Your task to perform on an android device: turn on translation in the chrome app Image 0: 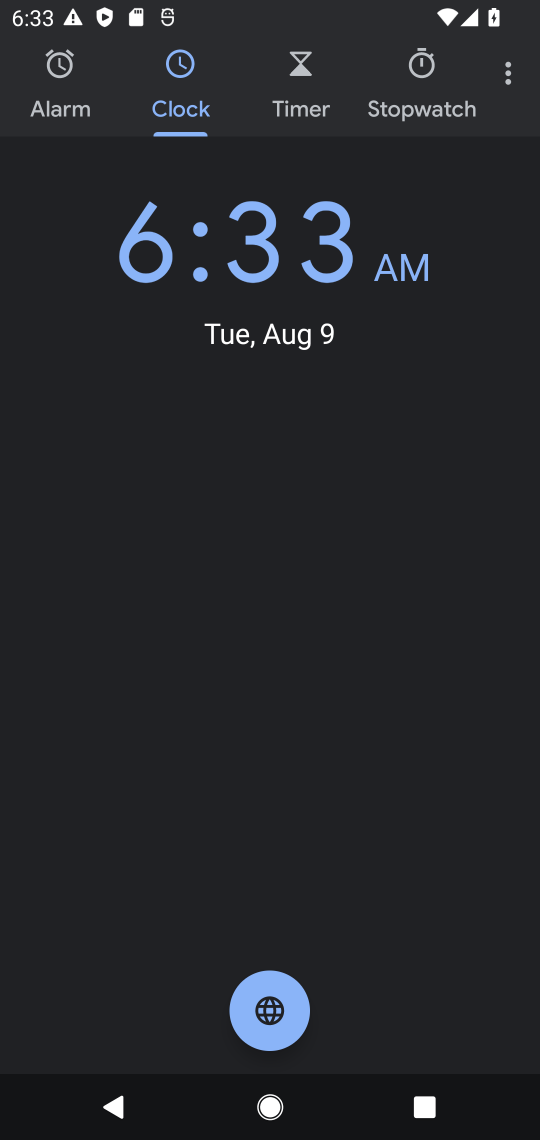
Step 0: press home button
Your task to perform on an android device: turn on translation in the chrome app Image 1: 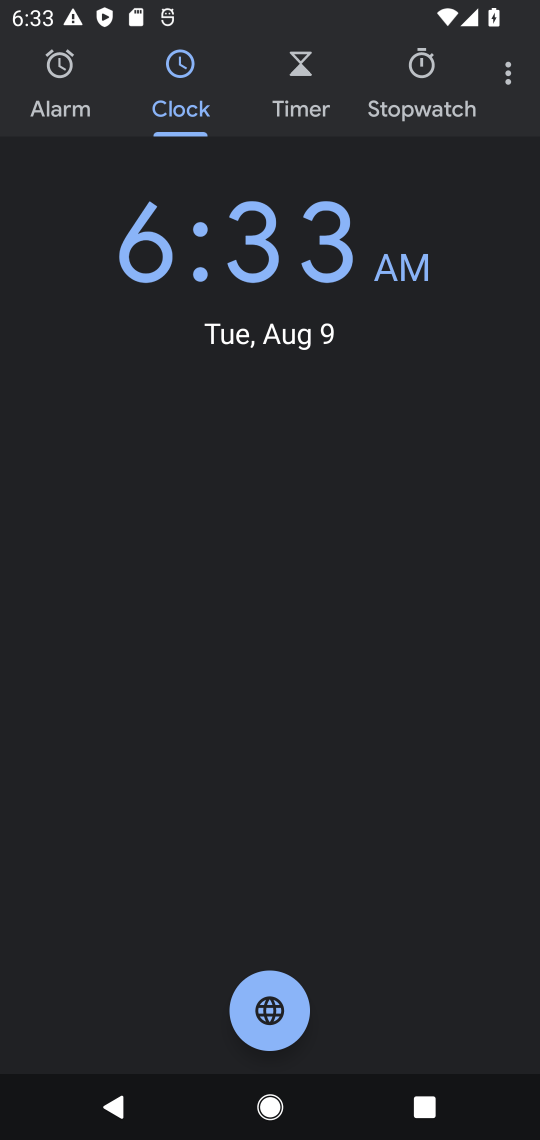
Step 1: press home button
Your task to perform on an android device: turn on translation in the chrome app Image 2: 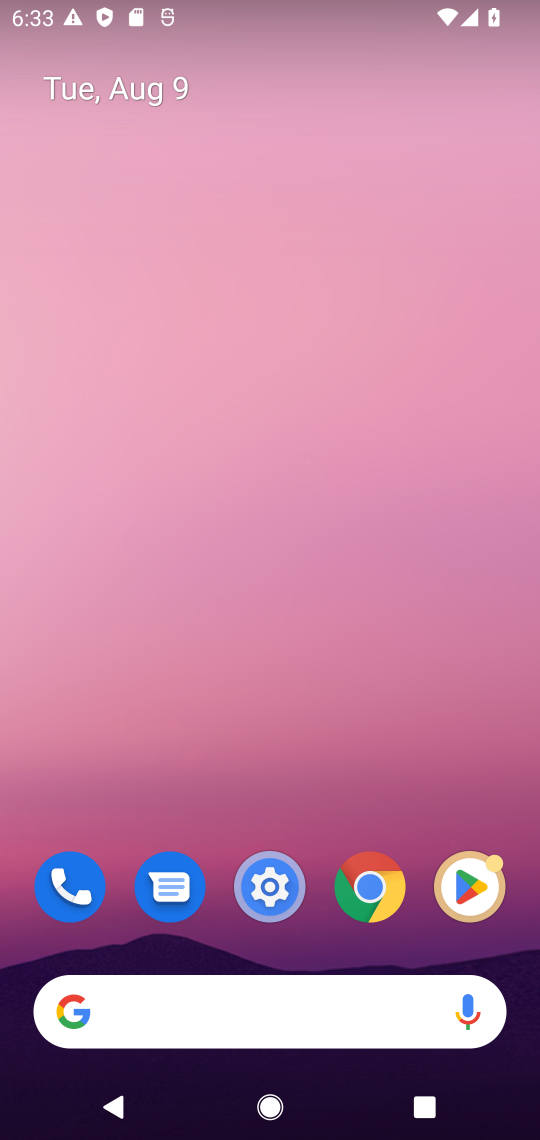
Step 2: click (364, 877)
Your task to perform on an android device: turn on translation in the chrome app Image 3: 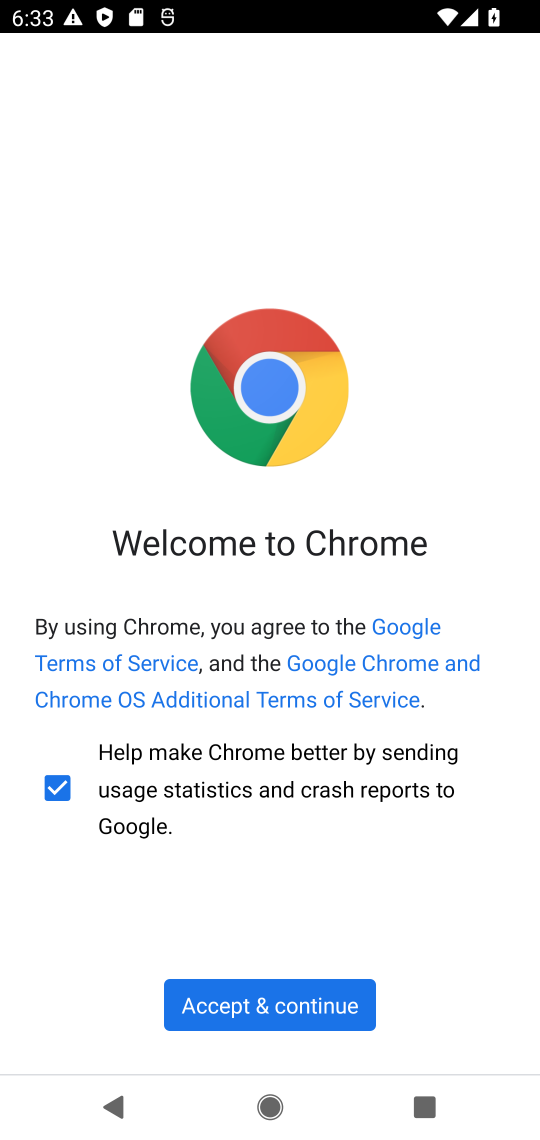
Step 3: click (343, 1002)
Your task to perform on an android device: turn on translation in the chrome app Image 4: 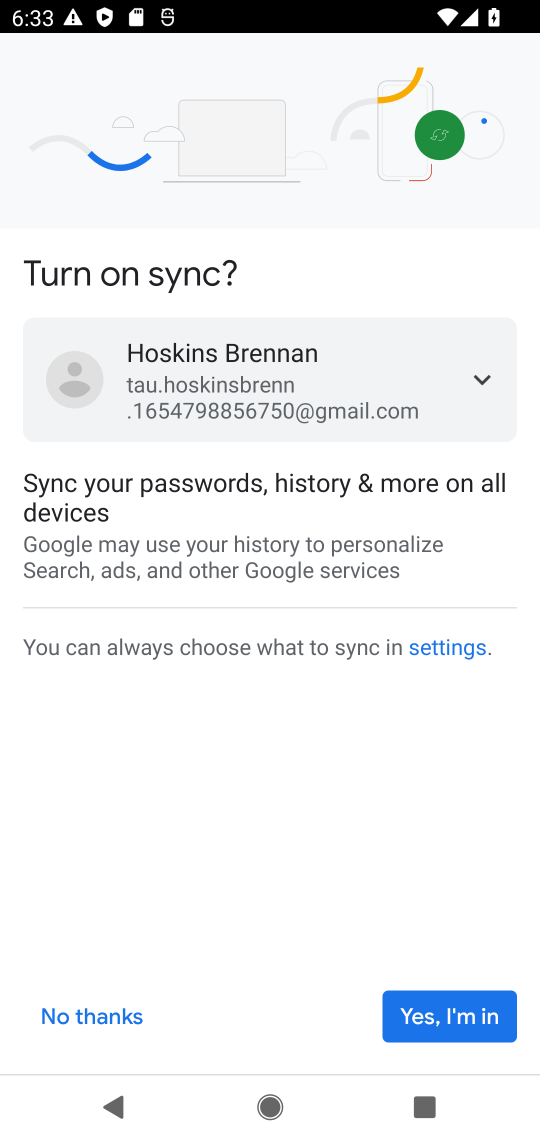
Step 4: click (440, 1012)
Your task to perform on an android device: turn on translation in the chrome app Image 5: 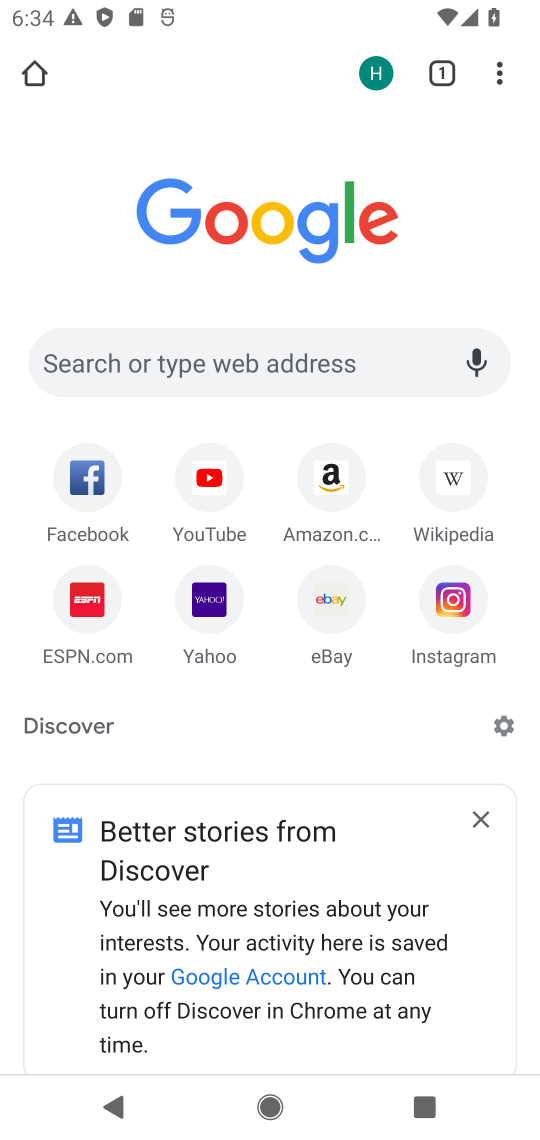
Step 5: click (502, 82)
Your task to perform on an android device: turn on translation in the chrome app Image 6: 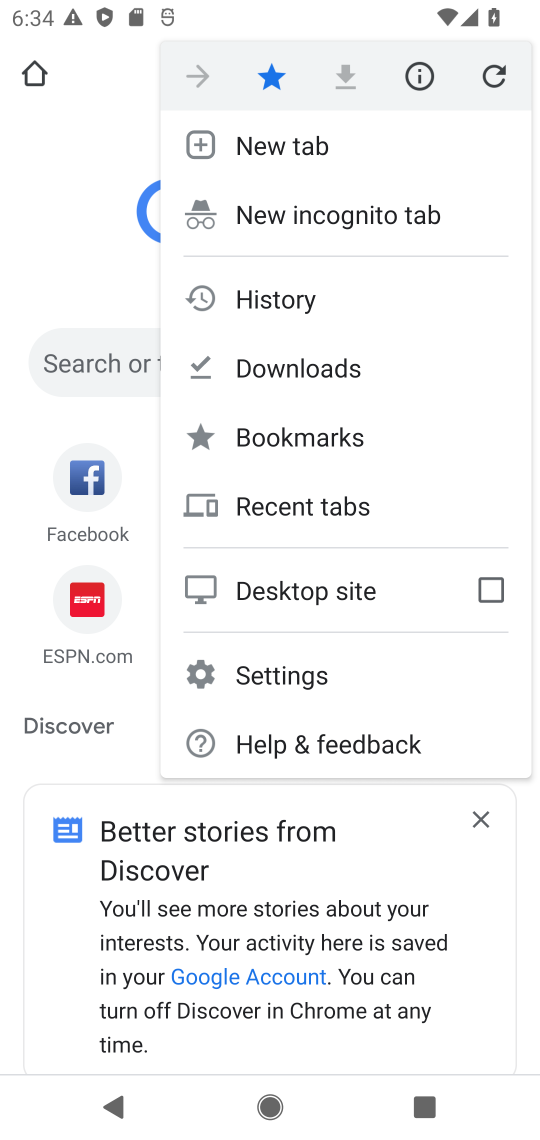
Step 6: click (337, 669)
Your task to perform on an android device: turn on translation in the chrome app Image 7: 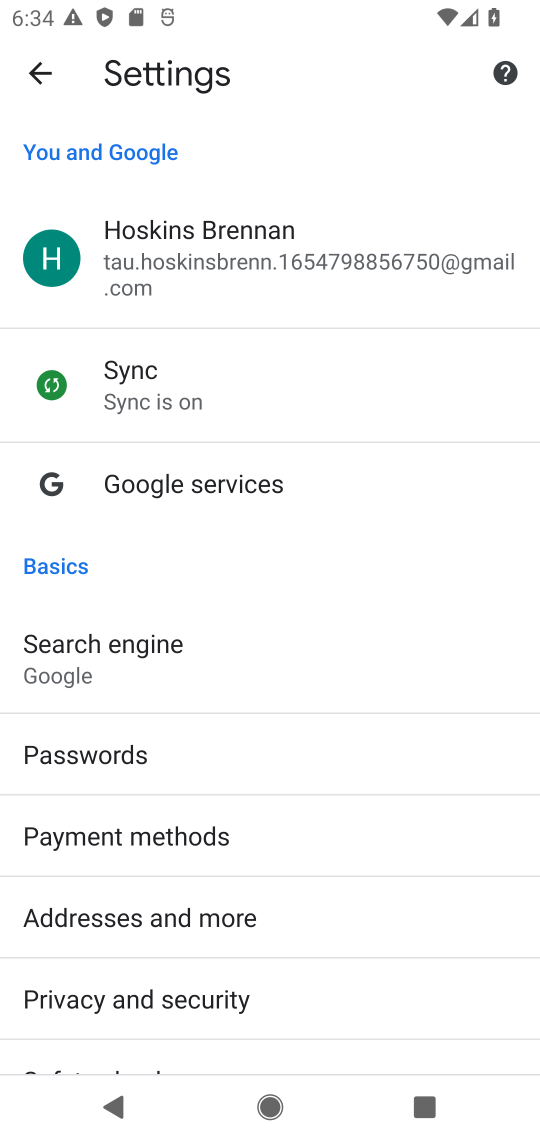
Step 7: drag from (329, 989) to (339, 12)
Your task to perform on an android device: turn on translation in the chrome app Image 8: 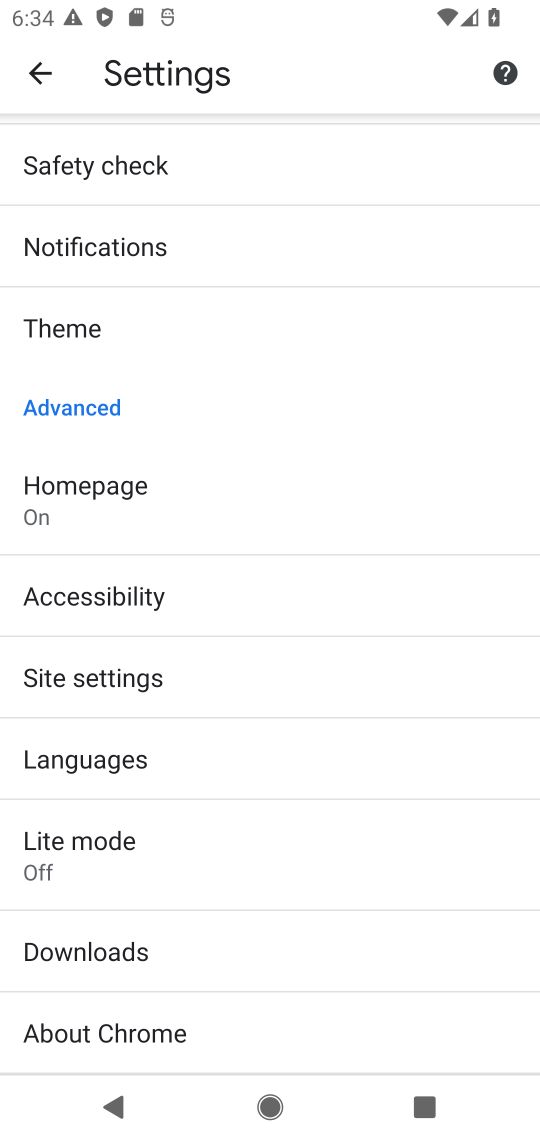
Step 8: click (252, 745)
Your task to perform on an android device: turn on translation in the chrome app Image 9: 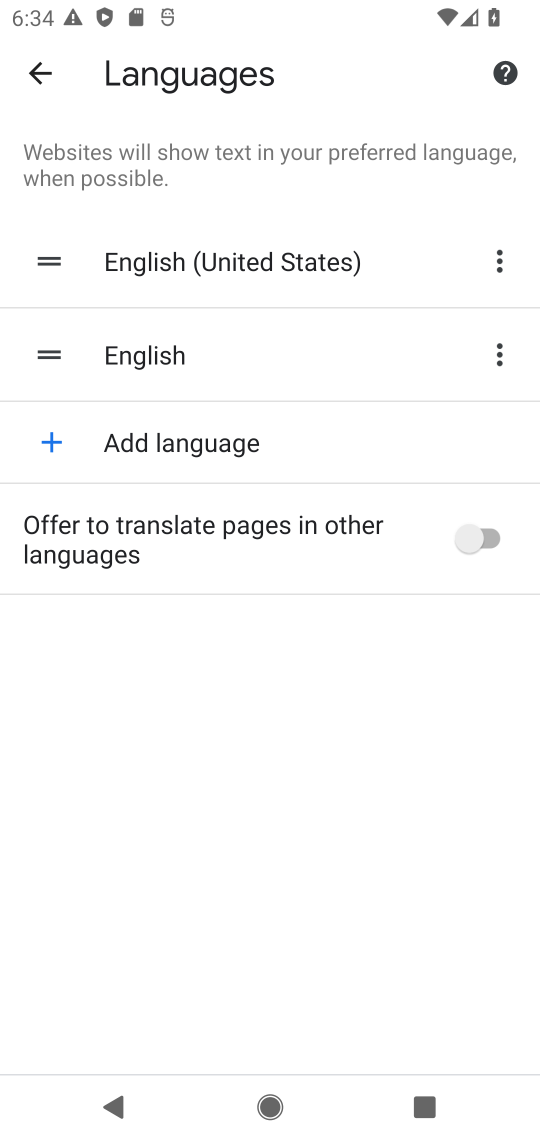
Step 9: click (481, 537)
Your task to perform on an android device: turn on translation in the chrome app Image 10: 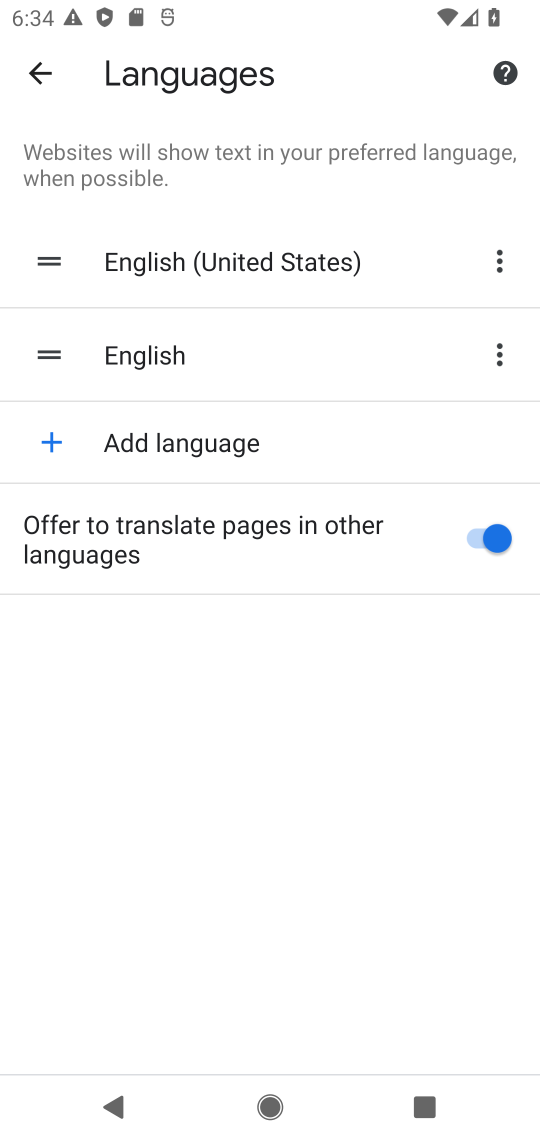
Step 10: task complete